Your task to perform on an android device: Open display settings Image 0: 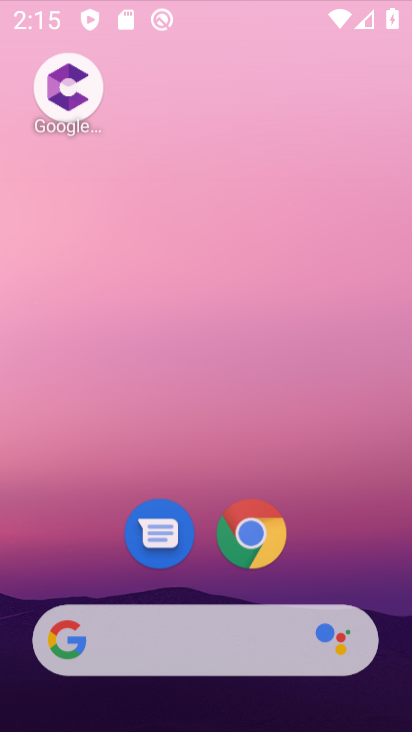
Step 0: click (315, 14)
Your task to perform on an android device: Open display settings Image 1: 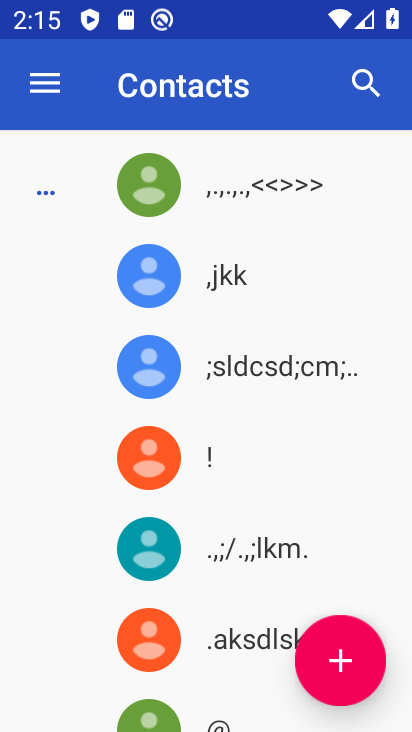
Step 1: press back button
Your task to perform on an android device: Open display settings Image 2: 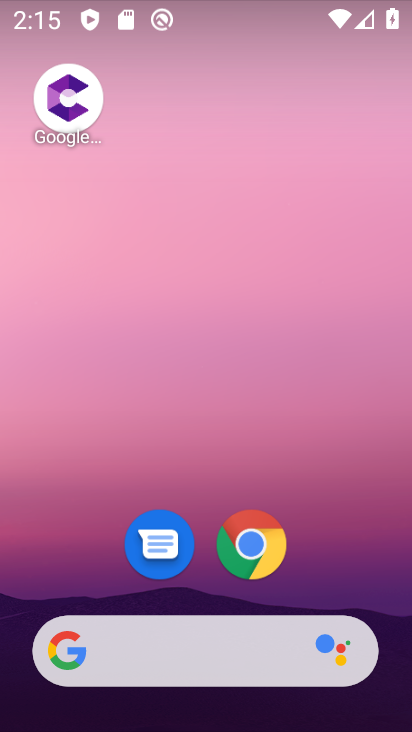
Step 2: drag from (199, 546) to (272, 48)
Your task to perform on an android device: Open display settings Image 3: 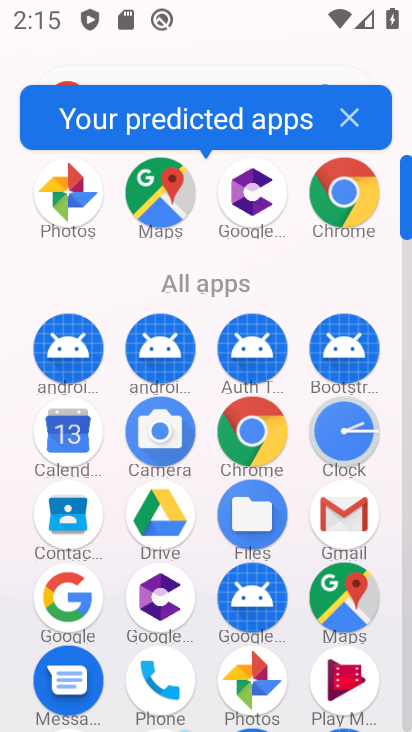
Step 3: drag from (174, 589) to (276, 137)
Your task to perform on an android device: Open display settings Image 4: 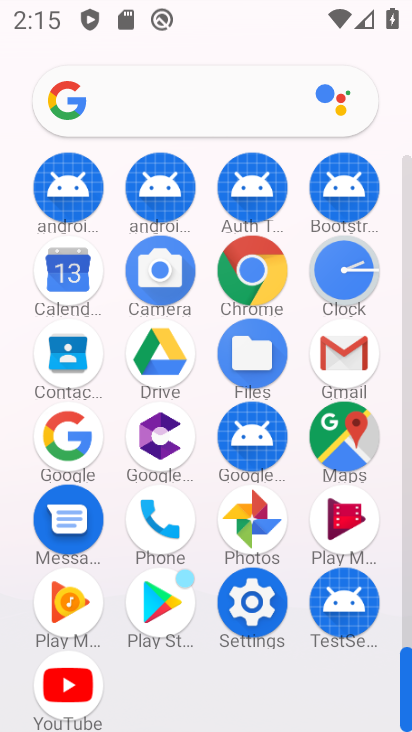
Step 4: click (254, 610)
Your task to perform on an android device: Open display settings Image 5: 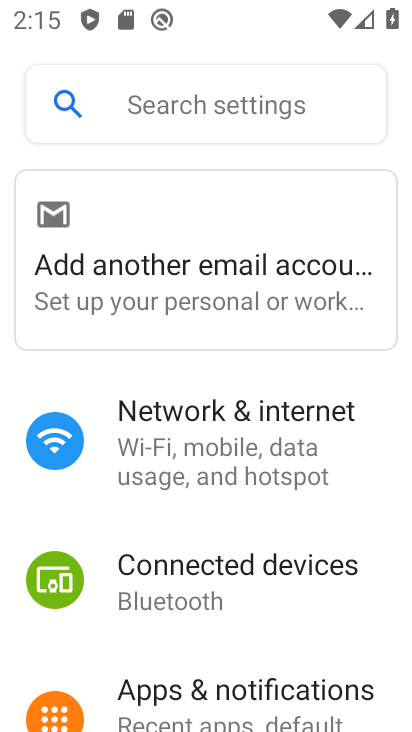
Step 5: drag from (259, 707) to (351, 98)
Your task to perform on an android device: Open display settings Image 6: 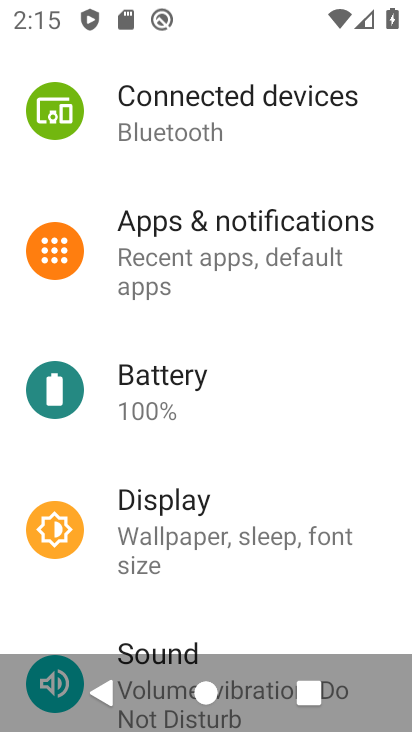
Step 6: click (205, 526)
Your task to perform on an android device: Open display settings Image 7: 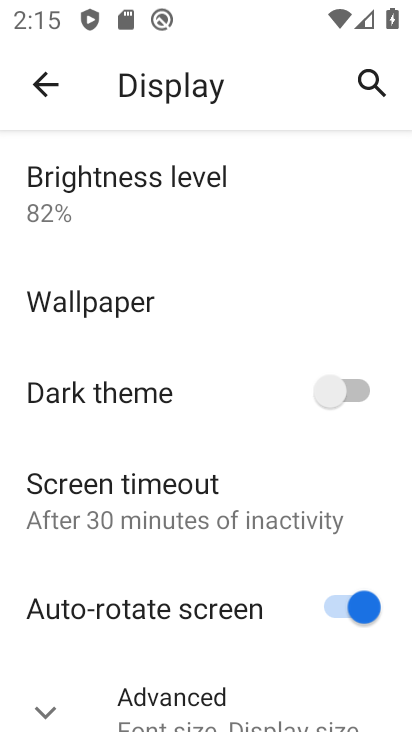
Step 7: task complete